Your task to perform on an android device: Open calendar and show me the first week of next month Image 0: 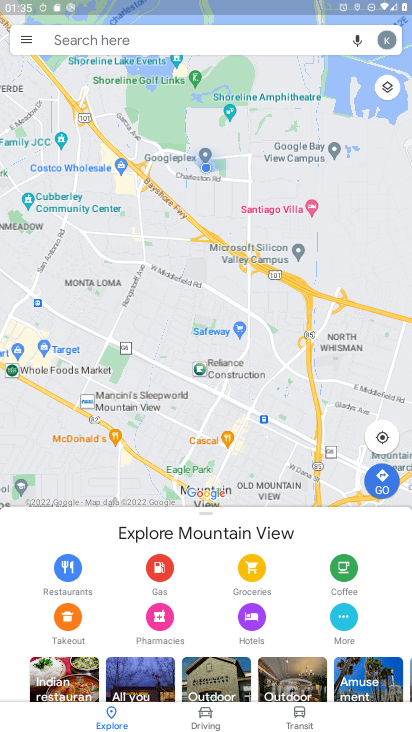
Step 0: press home button
Your task to perform on an android device: Open calendar and show me the first week of next month Image 1: 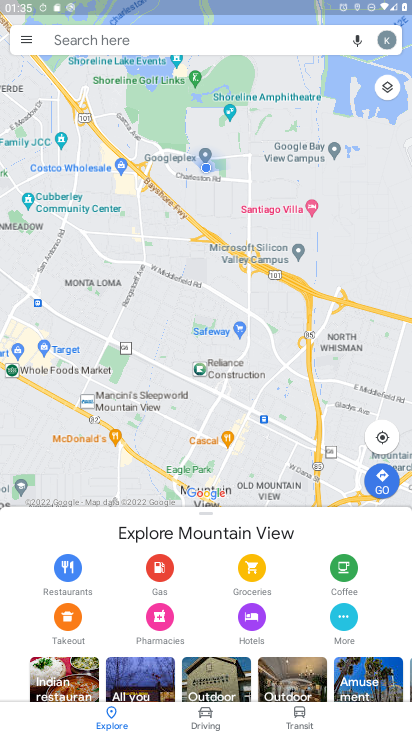
Step 1: drag from (219, 560) to (231, 176)
Your task to perform on an android device: Open calendar and show me the first week of next month Image 2: 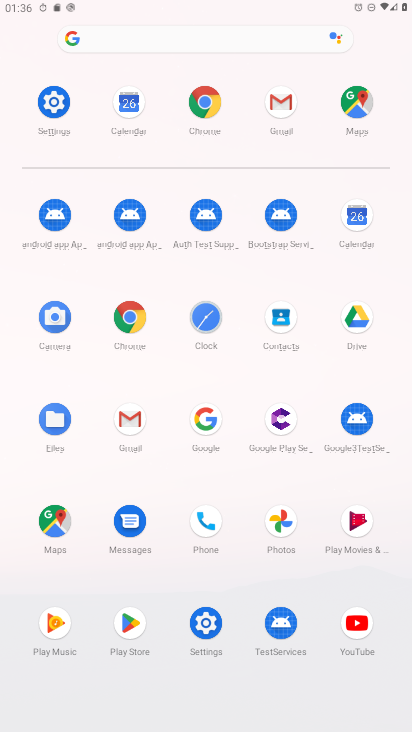
Step 2: click (337, 237)
Your task to perform on an android device: Open calendar and show me the first week of next month Image 3: 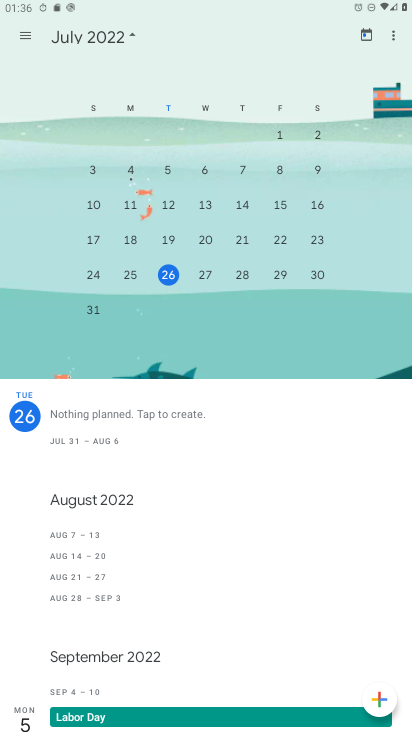
Step 3: drag from (397, 212) to (15, 425)
Your task to perform on an android device: Open calendar and show me the first week of next month Image 4: 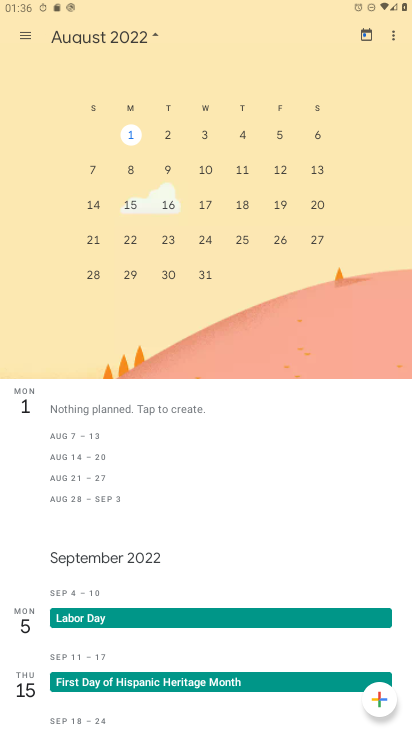
Step 4: click (124, 135)
Your task to perform on an android device: Open calendar and show me the first week of next month Image 5: 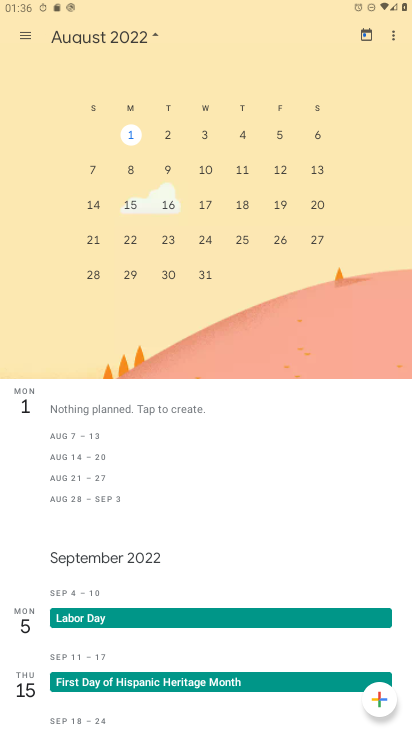
Step 5: task complete